Your task to perform on an android device: stop showing notifications on the lock screen Image 0: 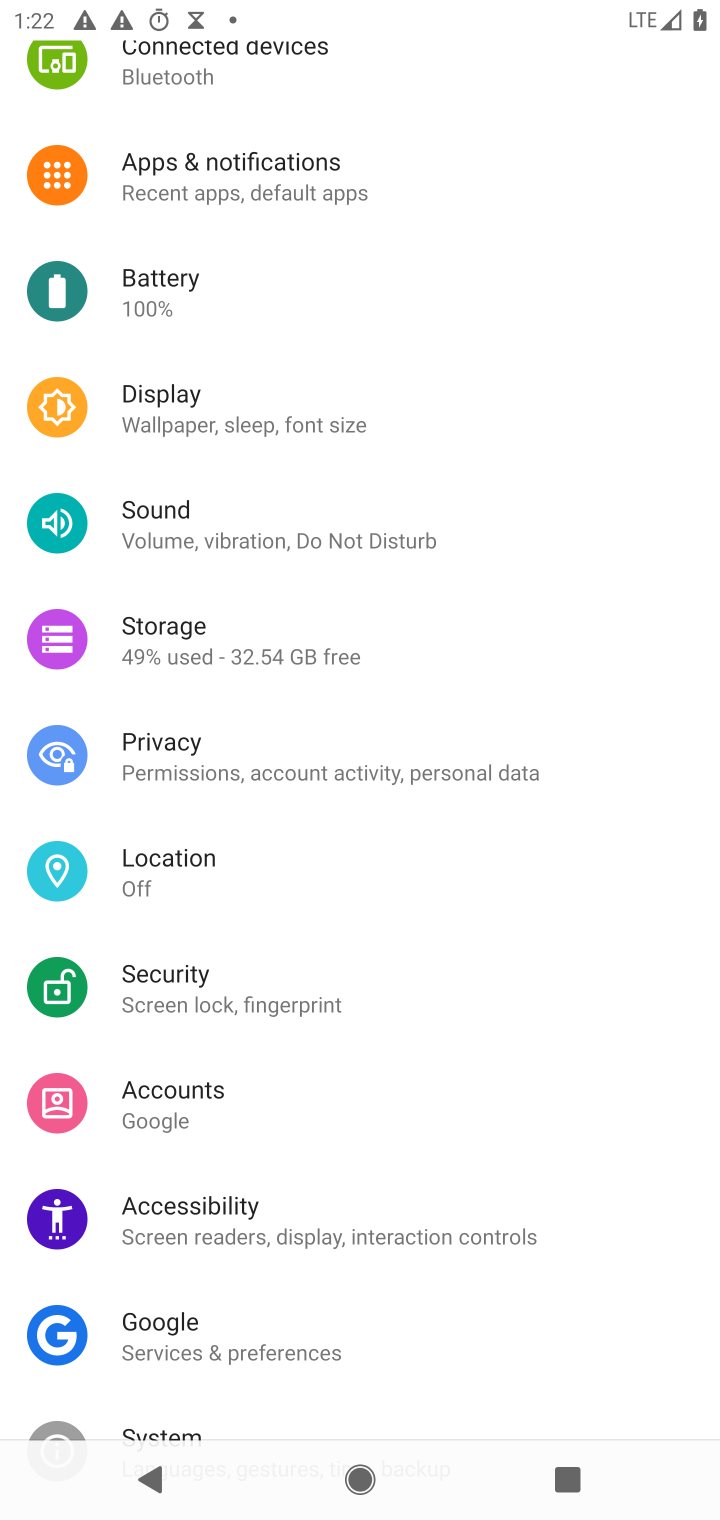
Step 0: press home button
Your task to perform on an android device: stop showing notifications on the lock screen Image 1: 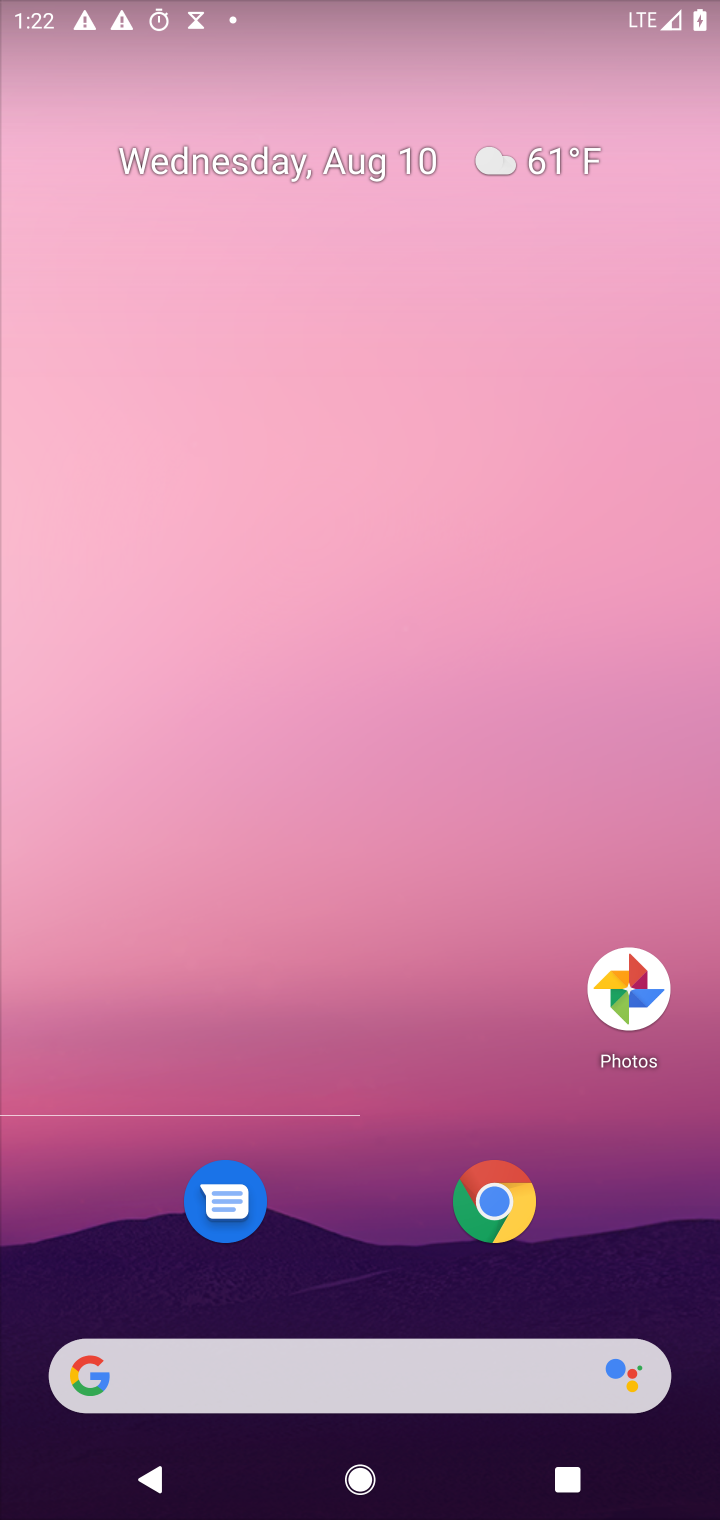
Step 1: drag from (351, 1201) to (335, 0)
Your task to perform on an android device: stop showing notifications on the lock screen Image 2: 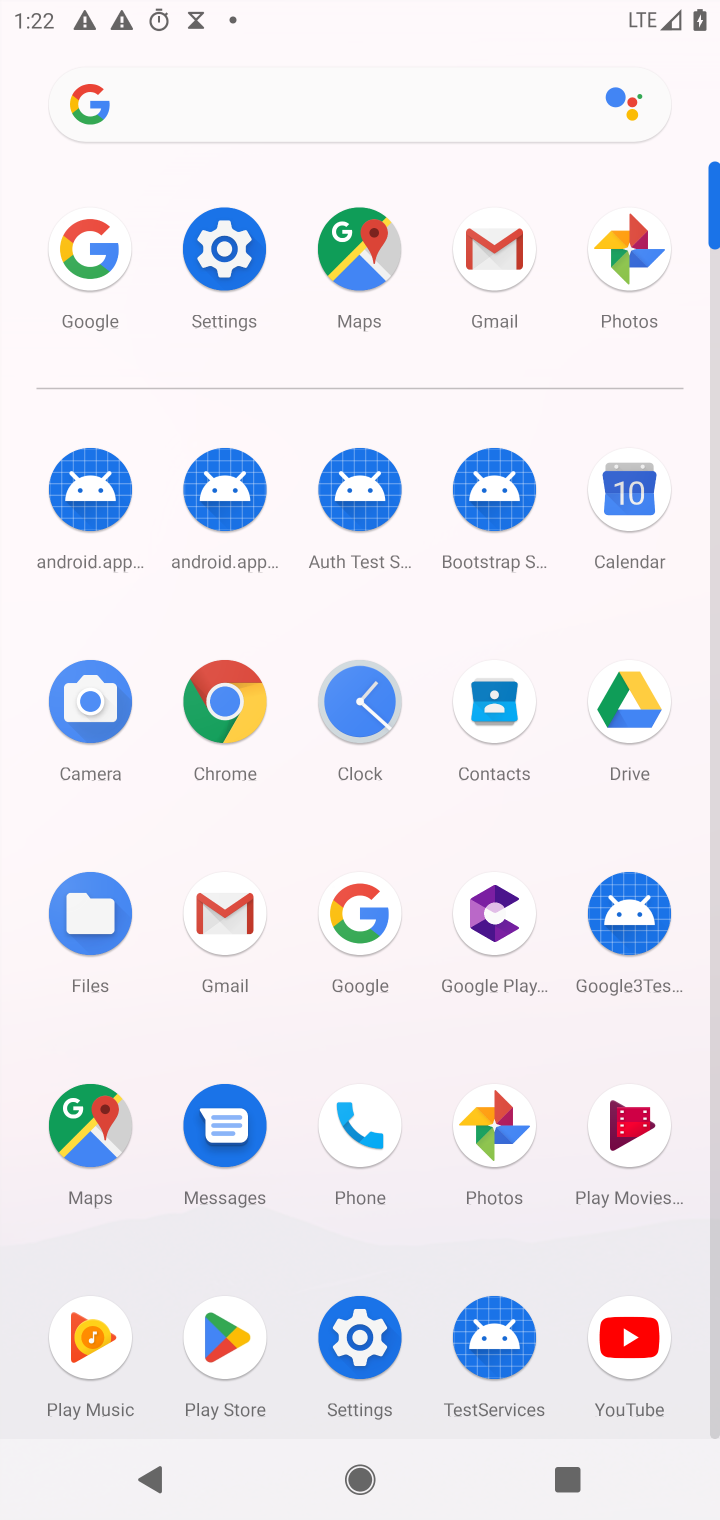
Step 2: click (213, 255)
Your task to perform on an android device: stop showing notifications on the lock screen Image 3: 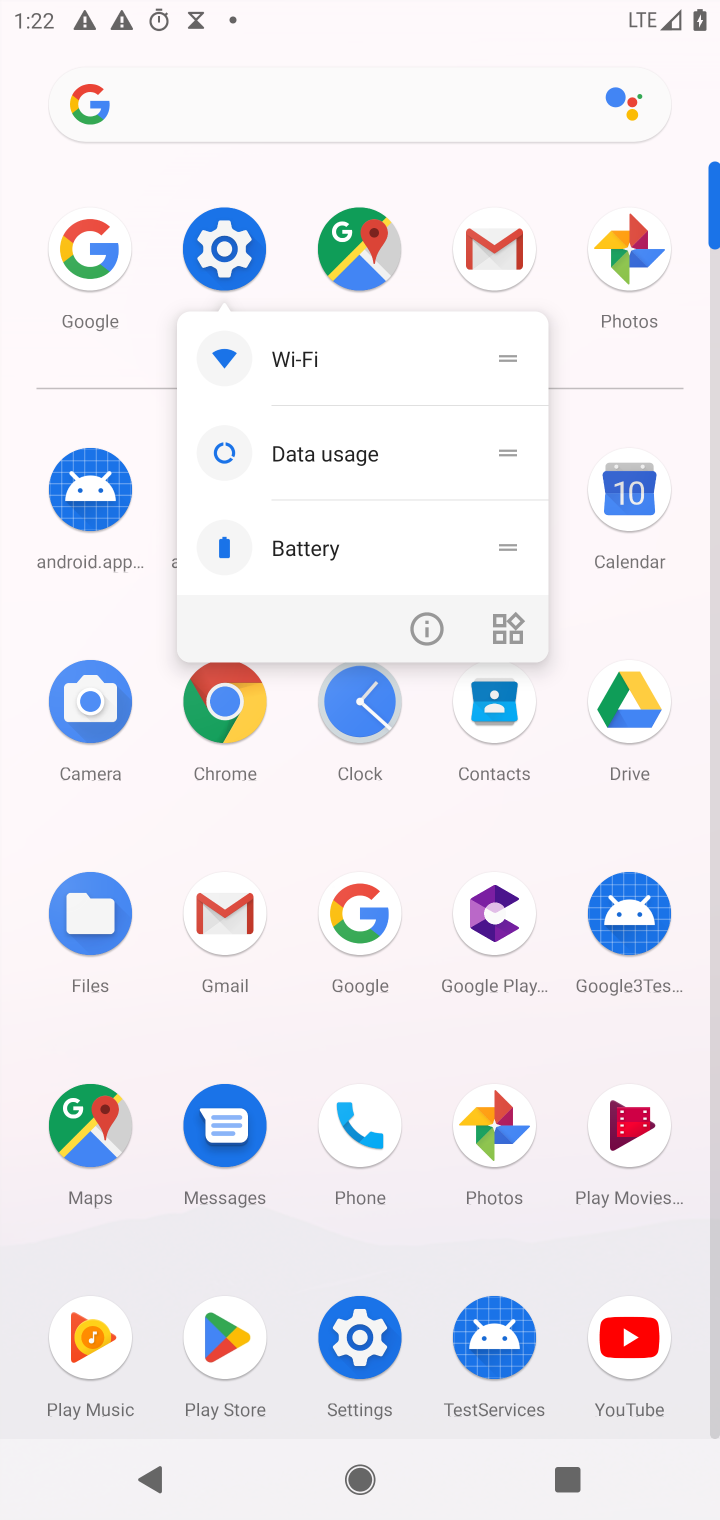
Step 3: click (221, 250)
Your task to perform on an android device: stop showing notifications on the lock screen Image 4: 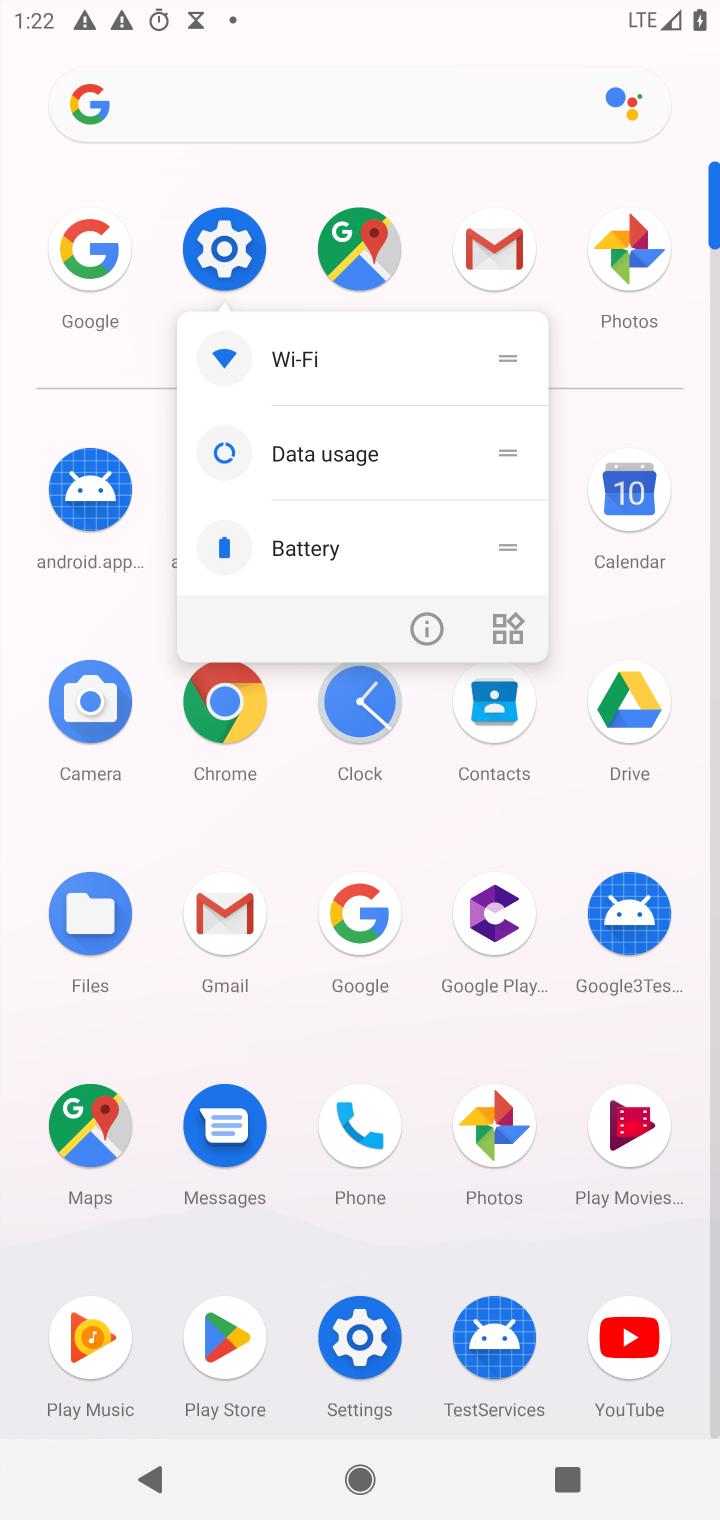
Step 4: click (221, 250)
Your task to perform on an android device: stop showing notifications on the lock screen Image 5: 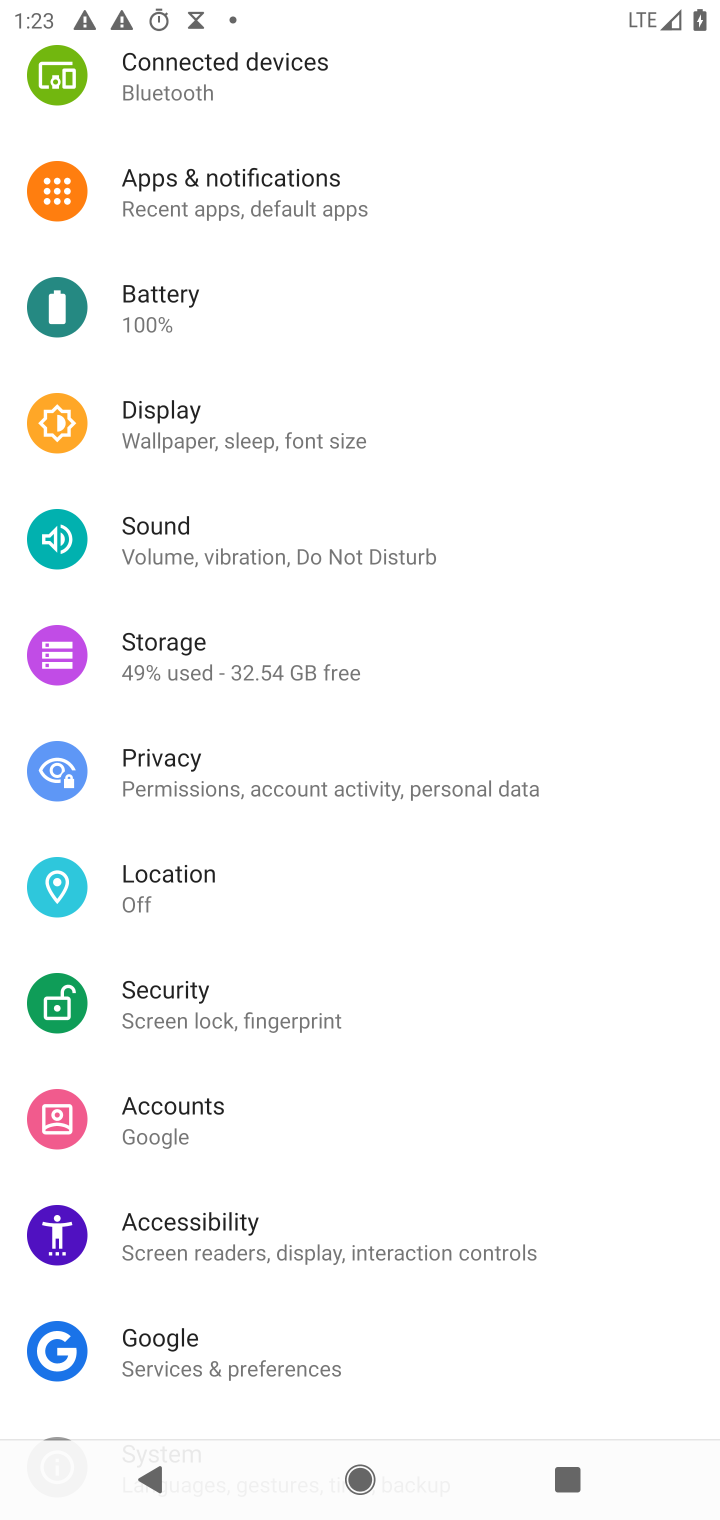
Step 5: click (218, 199)
Your task to perform on an android device: stop showing notifications on the lock screen Image 6: 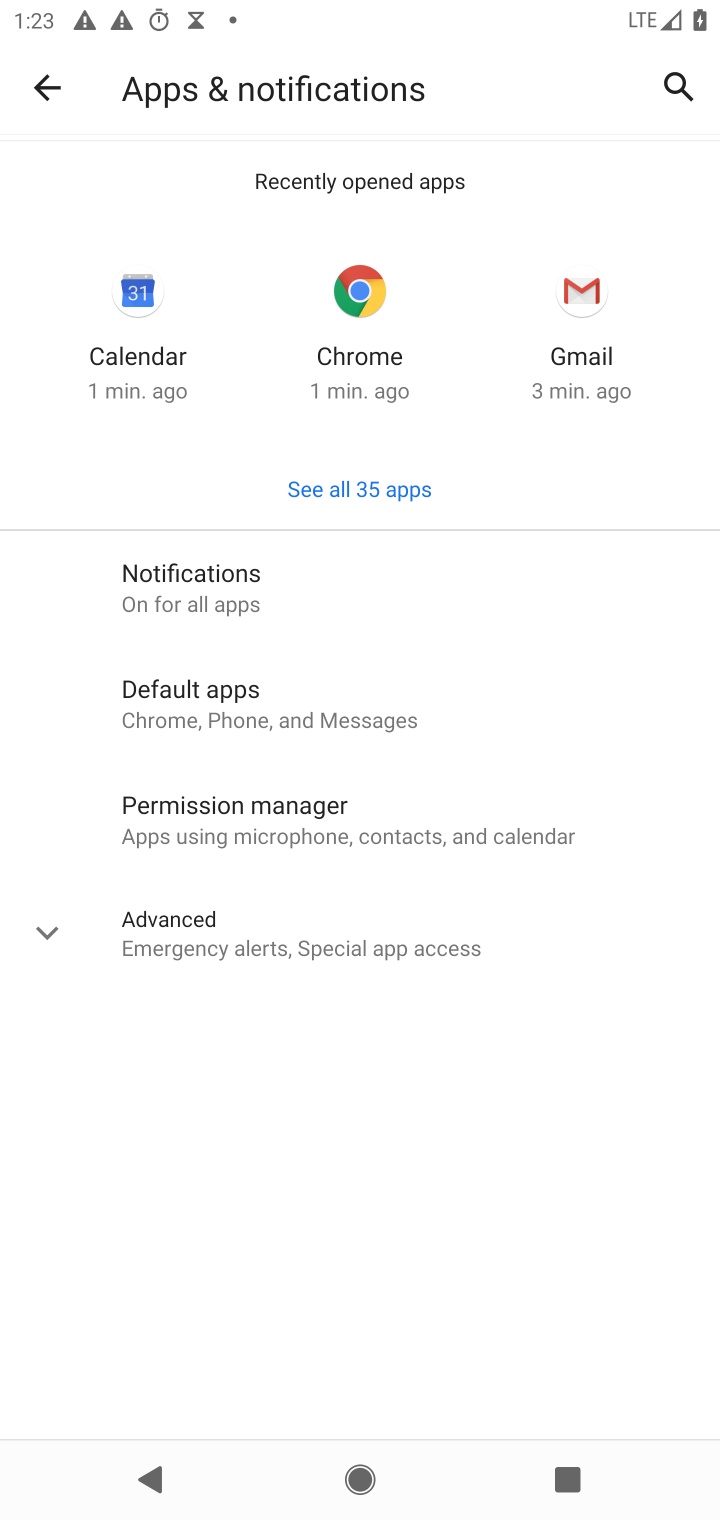
Step 6: click (147, 596)
Your task to perform on an android device: stop showing notifications on the lock screen Image 7: 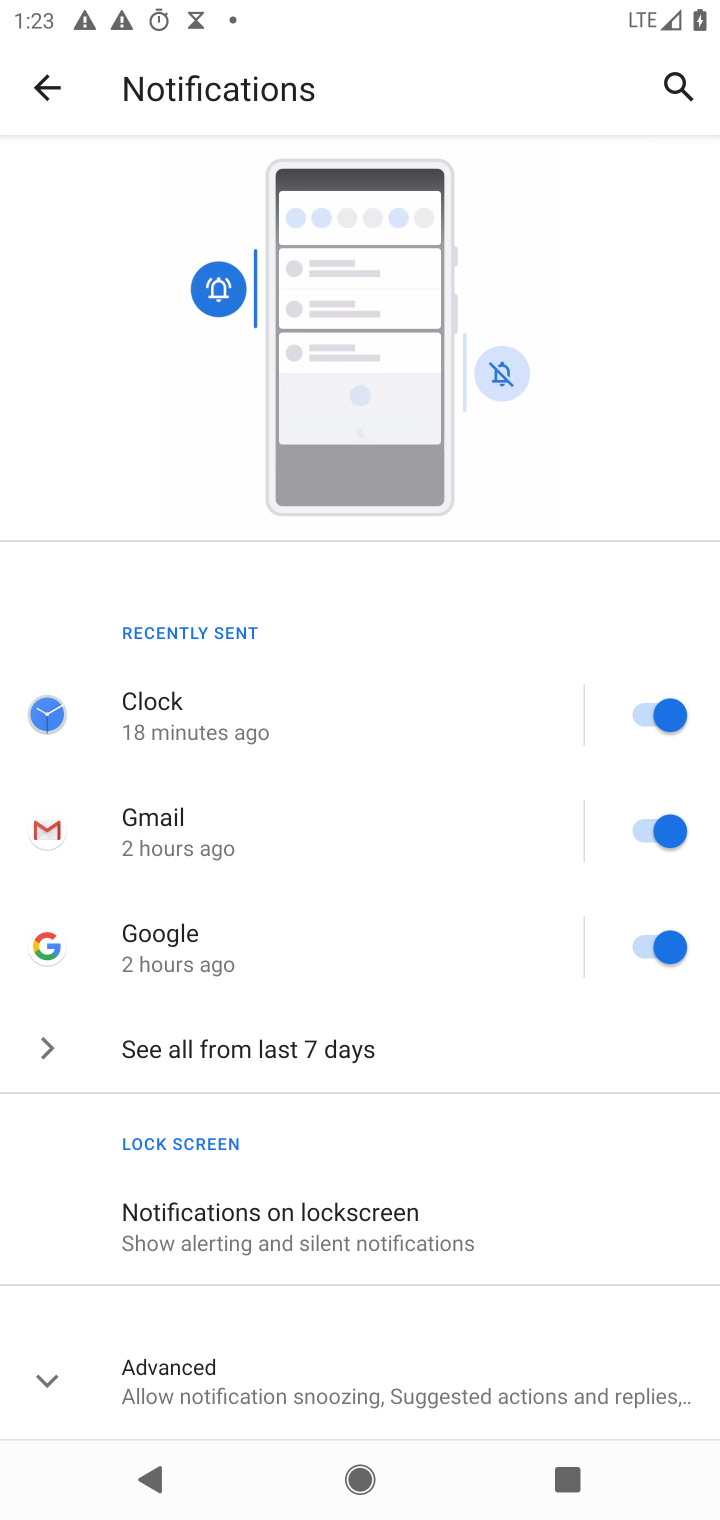
Step 7: click (238, 1240)
Your task to perform on an android device: stop showing notifications on the lock screen Image 8: 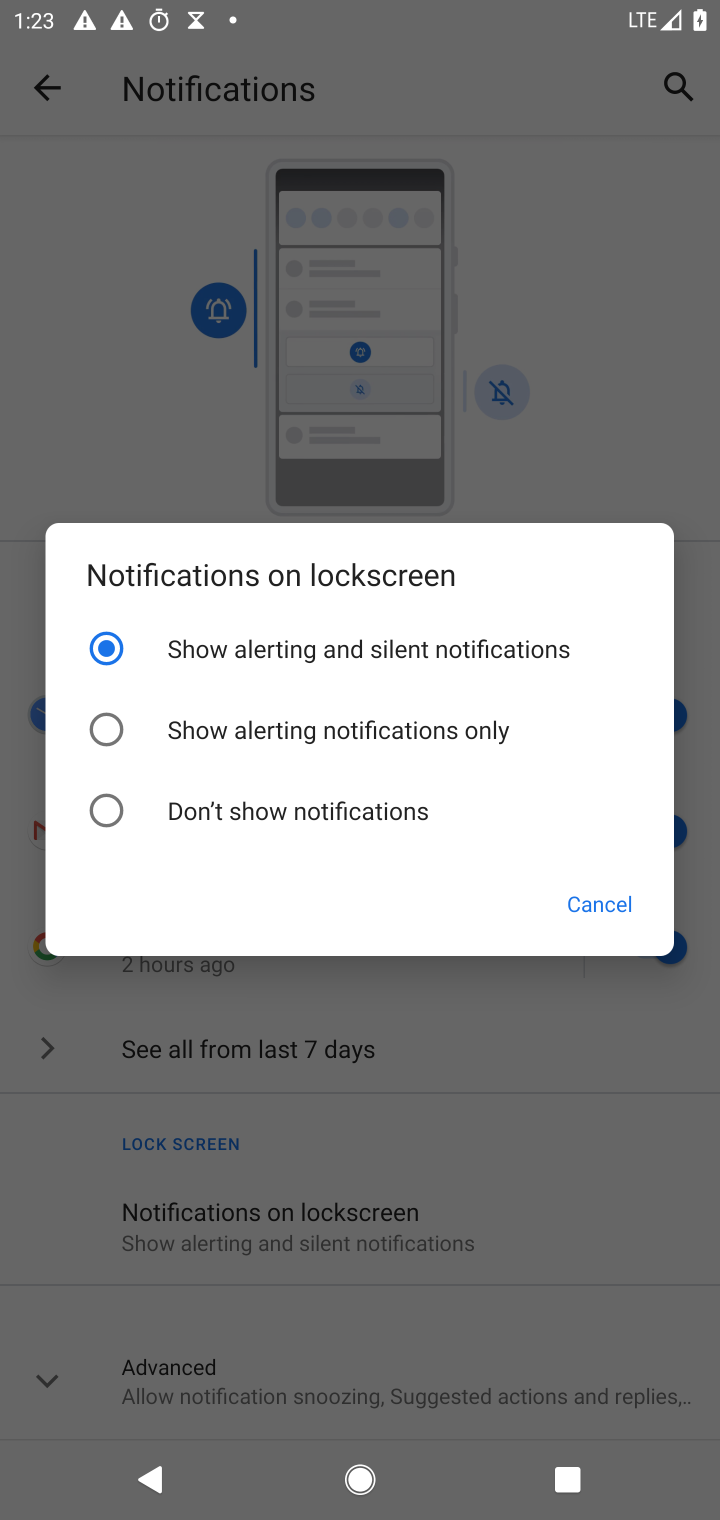
Step 8: click (118, 812)
Your task to perform on an android device: stop showing notifications on the lock screen Image 9: 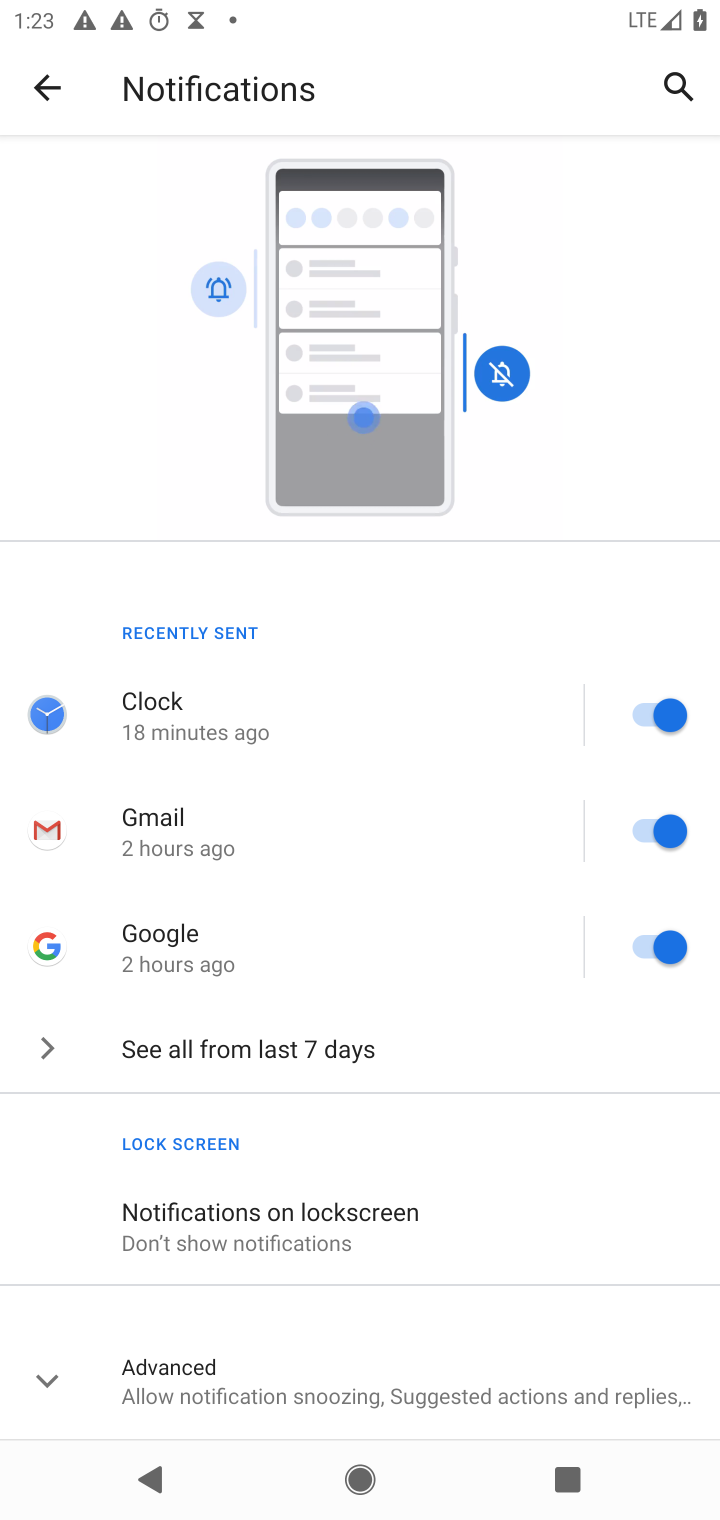
Step 9: task complete